Your task to perform on an android device: find photos in the google photos app Image 0: 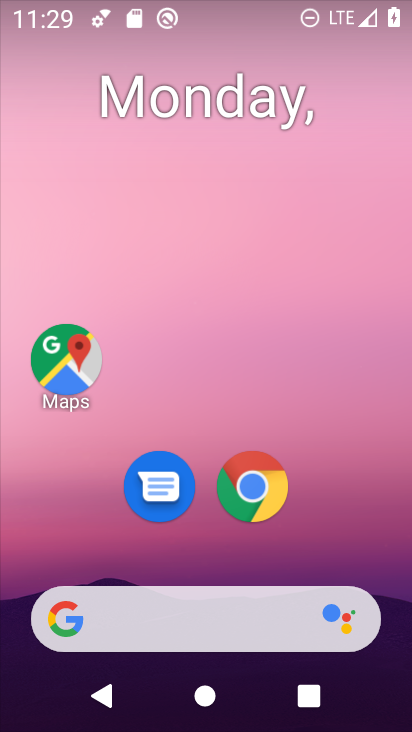
Step 0: drag from (133, 725) to (156, 178)
Your task to perform on an android device: find photos in the google photos app Image 1: 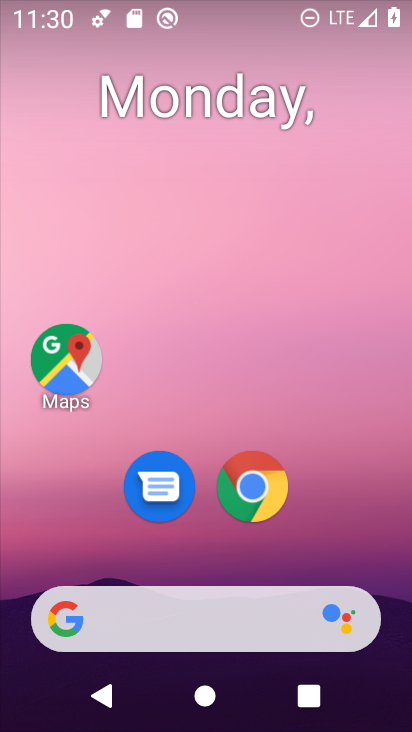
Step 1: drag from (2, 598) to (218, 145)
Your task to perform on an android device: find photos in the google photos app Image 2: 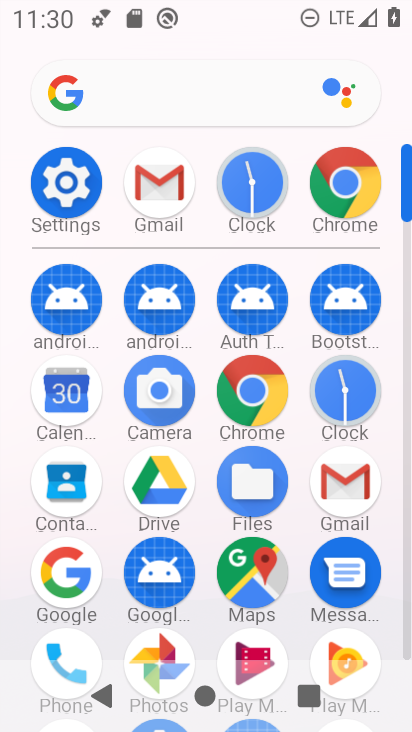
Step 2: click (184, 639)
Your task to perform on an android device: find photos in the google photos app Image 3: 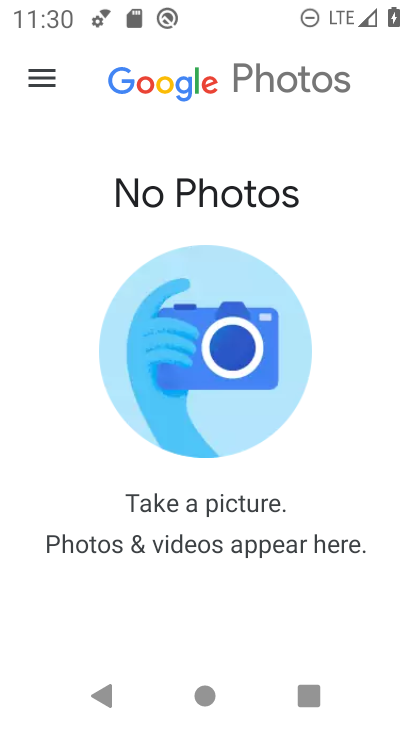
Step 3: click (45, 84)
Your task to perform on an android device: find photos in the google photos app Image 4: 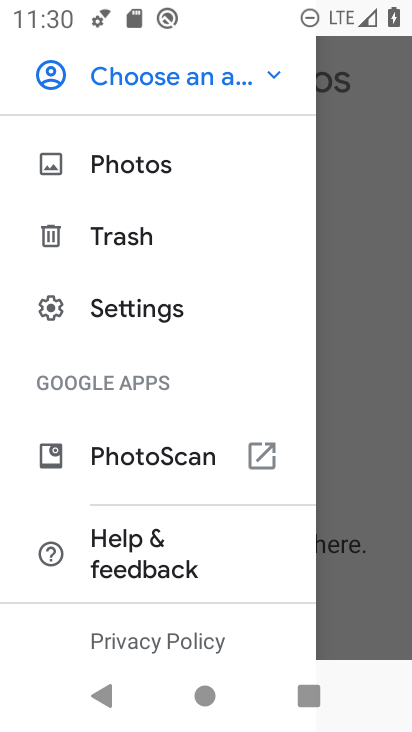
Step 4: click (109, 167)
Your task to perform on an android device: find photos in the google photos app Image 5: 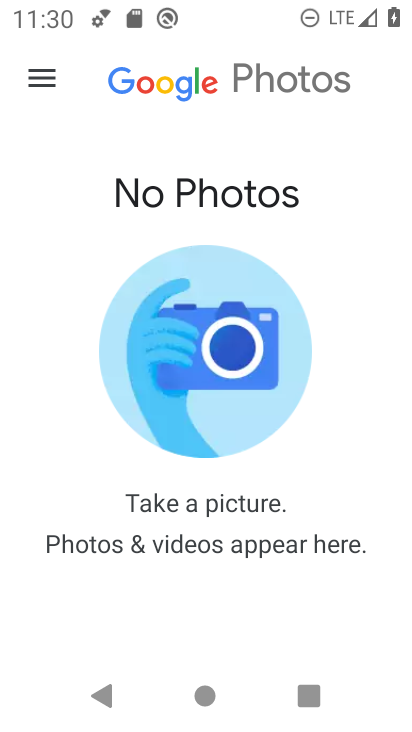
Step 5: task complete